Your task to perform on an android device: Turn off the flashlight Image 0: 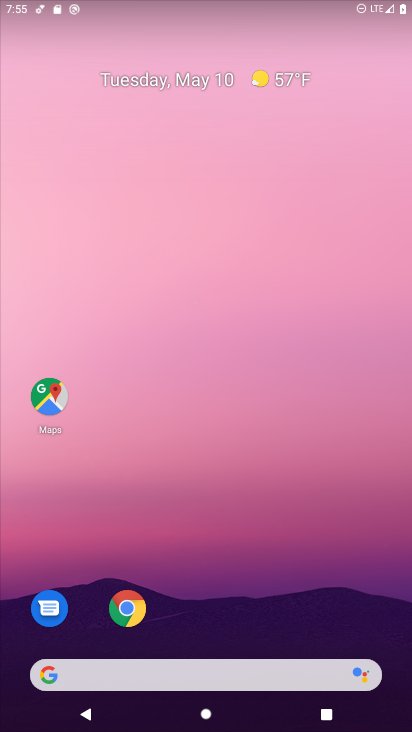
Step 0: drag from (343, 616) to (298, 71)
Your task to perform on an android device: Turn off the flashlight Image 1: 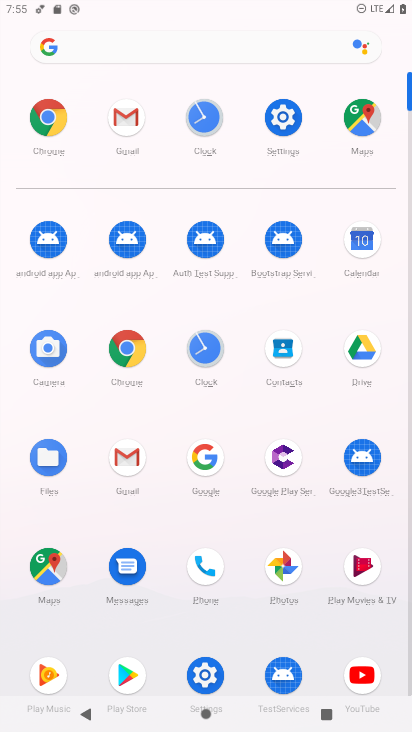
Step 1: click (283, 110)
Your task to perform on an android device: Turn off the flashlight Image 2: 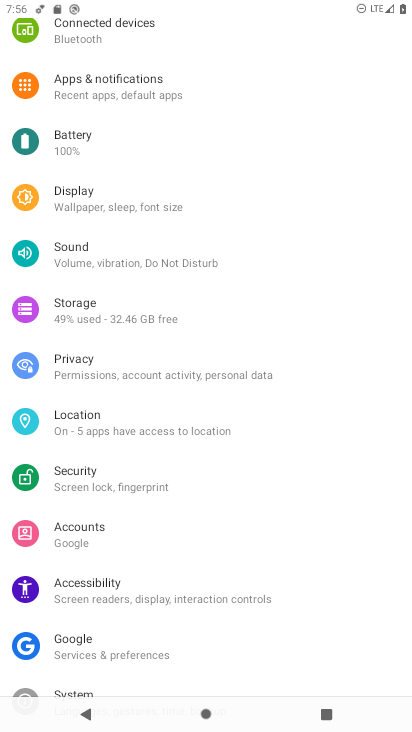
Step 2: task complete